Your task to perform on an android device: turn smart compose on in the gmail app Image 0: 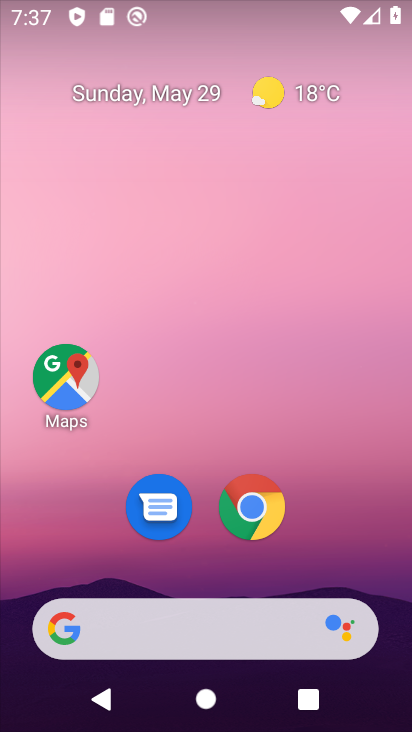
Step 0: drag from (295, 566) to (192, 283)
Your task to perform on an android device: turn smart compose on in the gmail app Image 1: 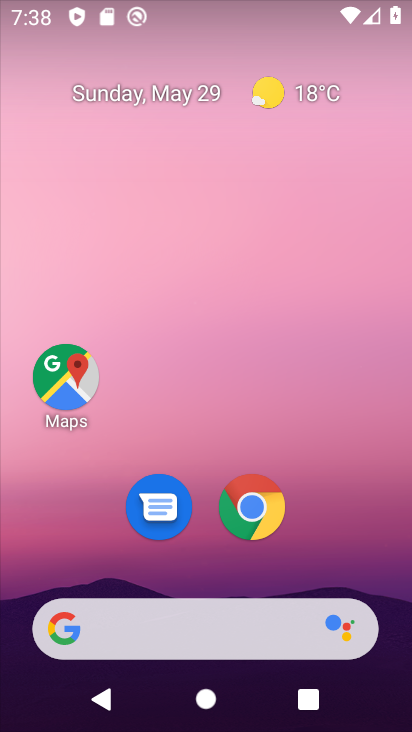
Step 1: drag from (333, 552) to (156, 73)
Your task to perform on an android device: turn smart compose on in the gmail app Image 2: 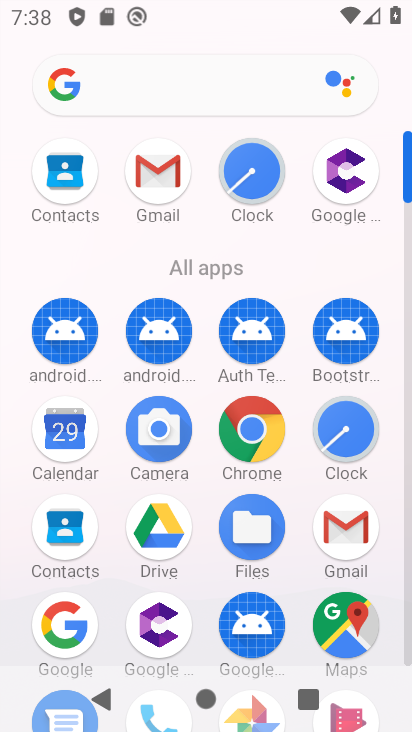
Step 2: click (157, 182)
Your task to perform on an android device: turn smart compose on in the gmail app Image 3: 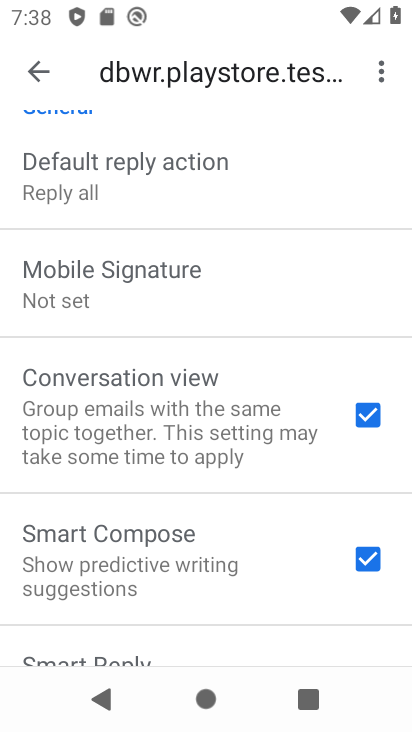
Step 3: task complete